Your task to perform on an android device: turn off improve location accuracy Image 0: 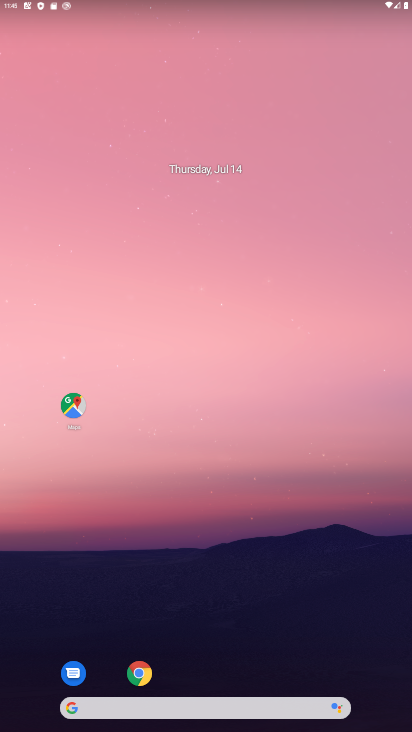
Step 0: drag from (243, 630) to (184, 142)
Your task to perform on an android device: turn off improve location accuracy Image 1: 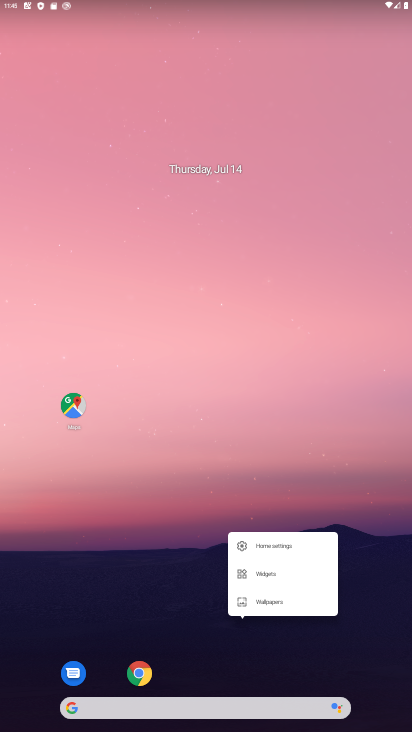
Step 1: click (206, 554)
Your task to perform on an android device: turn off improve location accuracy Image 2: 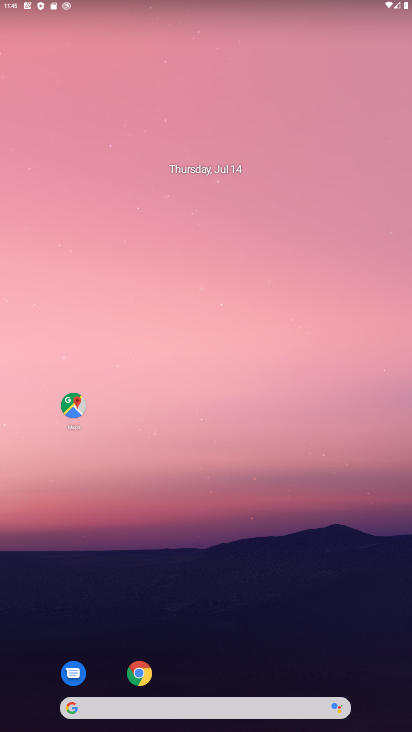
Step 2: drag from (214, 571) to (188, 86)
Your task to perform on an android device: turn off improve location accuracy Image 3: 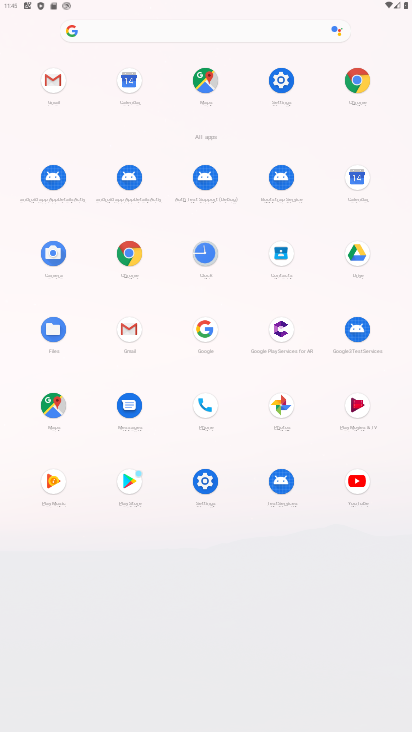
Step 3: click (205, 478)
Your task to perform on an android device: turn off improve location accuracy Image 4: 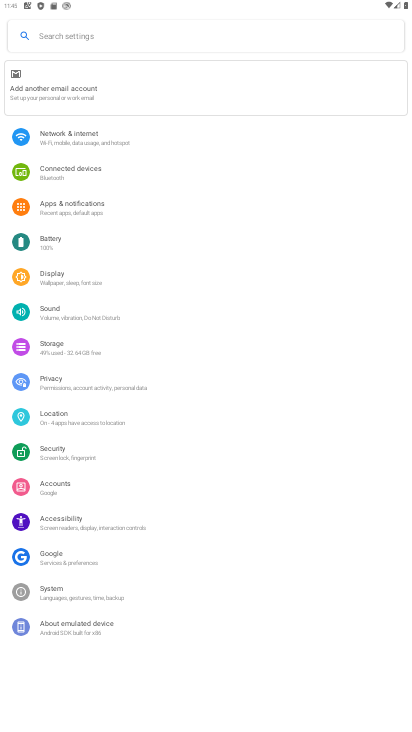
Step 4: click (98, 418)
Your task to perform on an android device: turn off improve location accuracy Image 5: 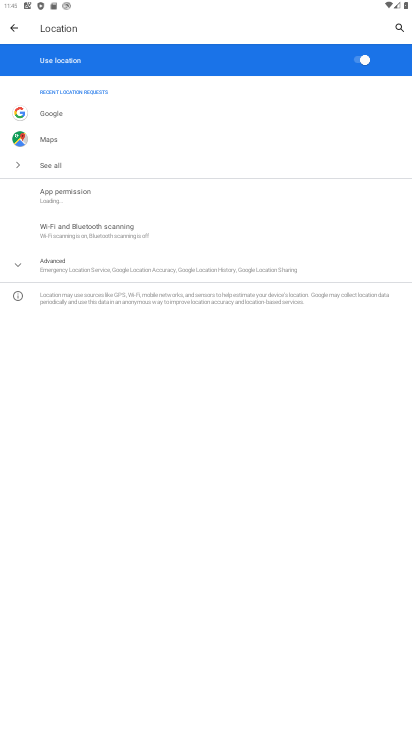
Step 5: click (108, 263)
Your task to perform on an android device: turn off improve location accuracy Image 6: 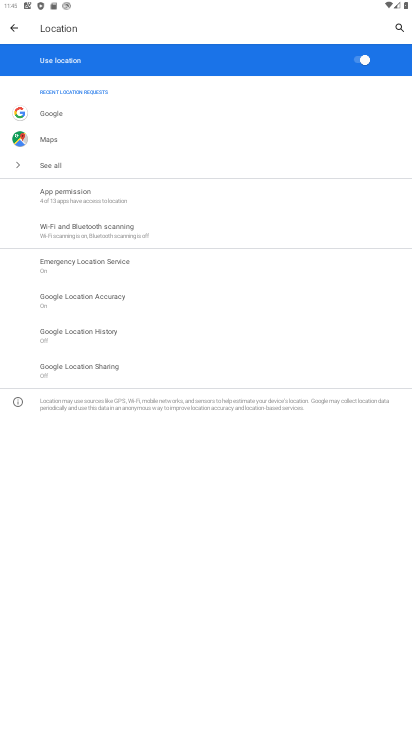
Step 6: click (109, 292)
Your task to perform on an android device: turn off improve location accuracy Image 7: 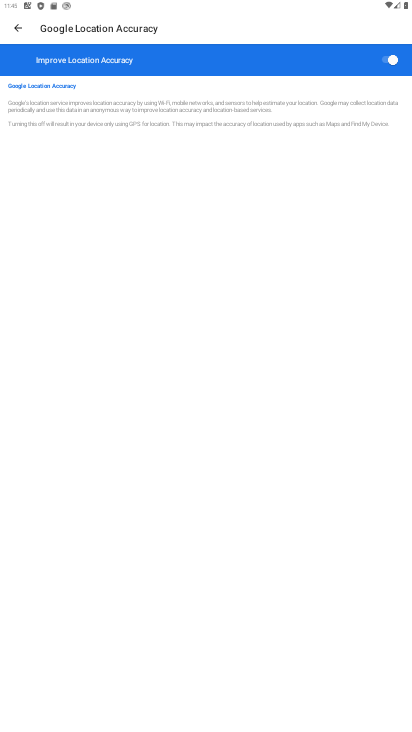
Step 7: click (394, 61)
Your task to perform on an android device: turn off improve location accuracy Image 8: 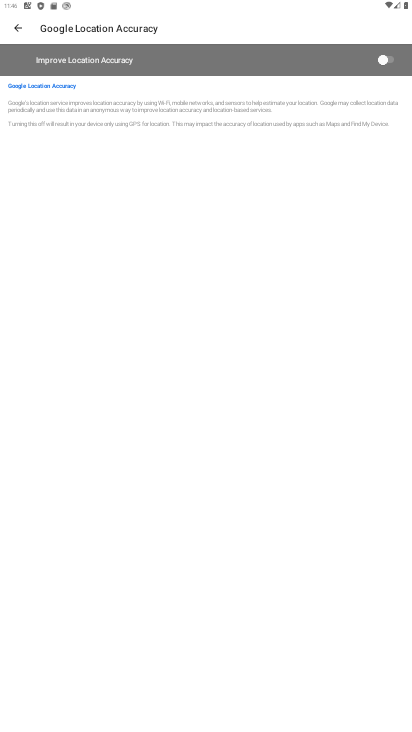
Step 8: task complete